Your task to perform on an android device: delete a single message in the gmail app Image 0: 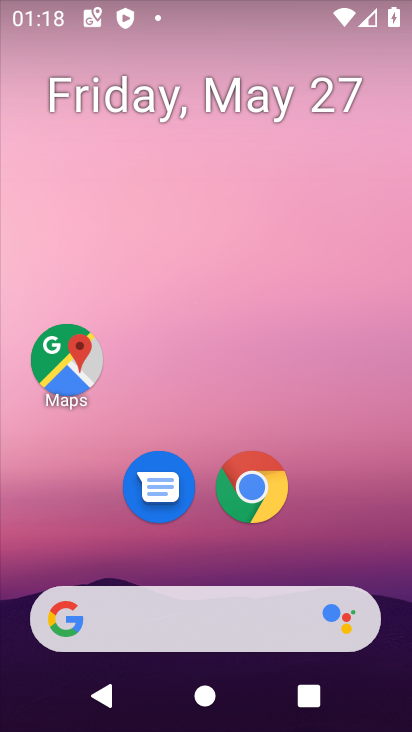
Step 0: drag from (159, 726) to (171, 41)
Your task to perform on an android device: delete a single message in the gmail app Image 1: 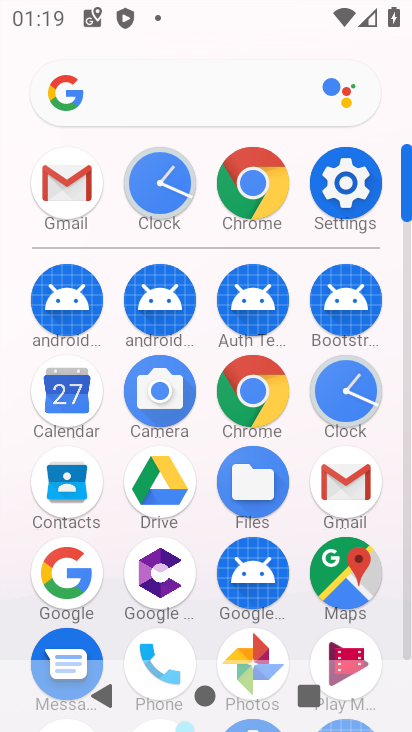
Step 1: click (341, 493)
Your task to perform on an android device: delete a single message in the gmail app Image 2: 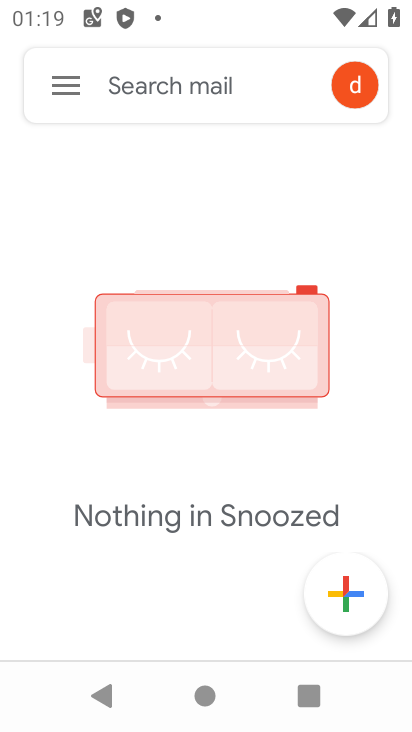
Step 2: click (57, 80)
Your task to perform on an android device: delete a single message in the gmail app Image 3: 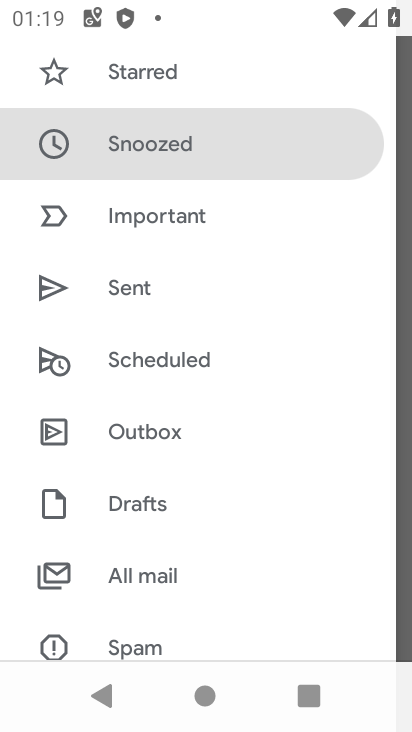
Step 3: drag from (198, 78) to (231, 591)
Your task to perform on an android device: delete a single message in the gmail app Image 4: 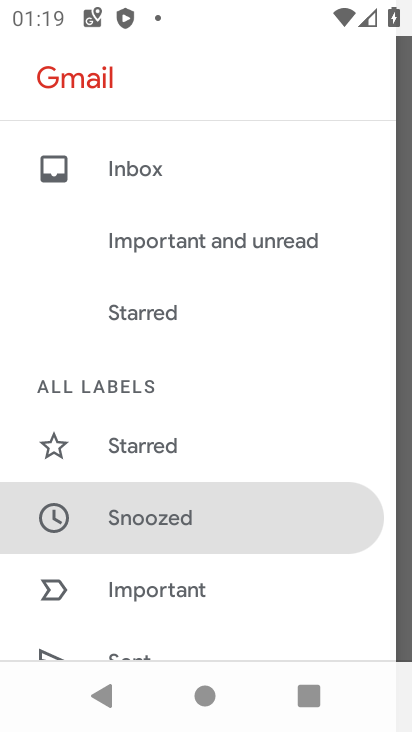
Step 4: click (106, 168)
Your task to perform on an android device: delete a single message in the gmail app Image 5: 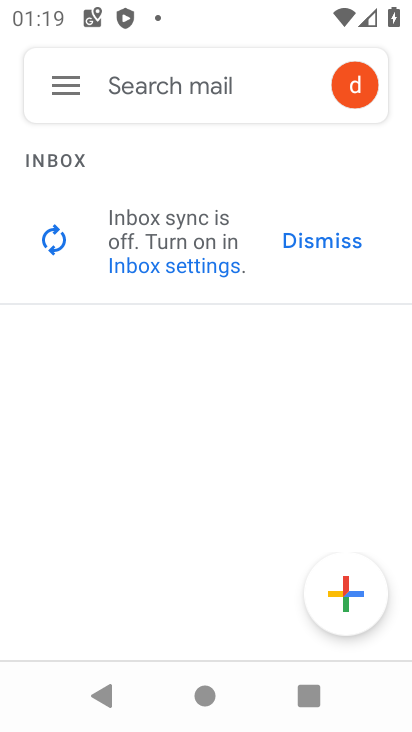
Step 5: click (353, 236)
Your task to perform on an android device: delete a single message in the gmail app Image 6: 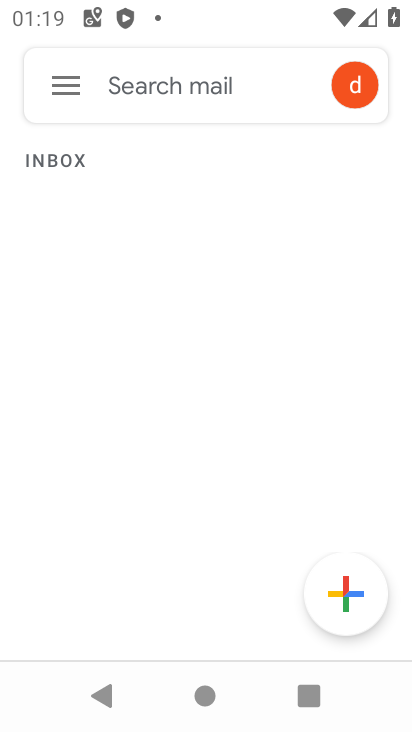
Step 6: click (69, 87)
Your task to perform on an android device: delete a single message in the gmail app Image 7: 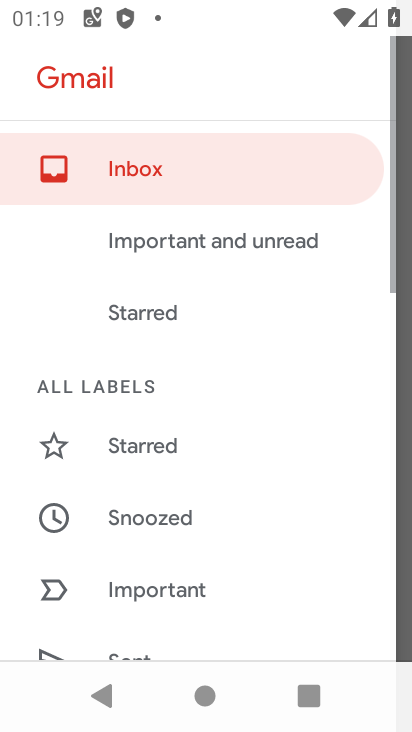
Step 7: drag from (267, 588) to (234, 252)
Your task to perform on an android device: delete a single message in the gmail app Image 8: 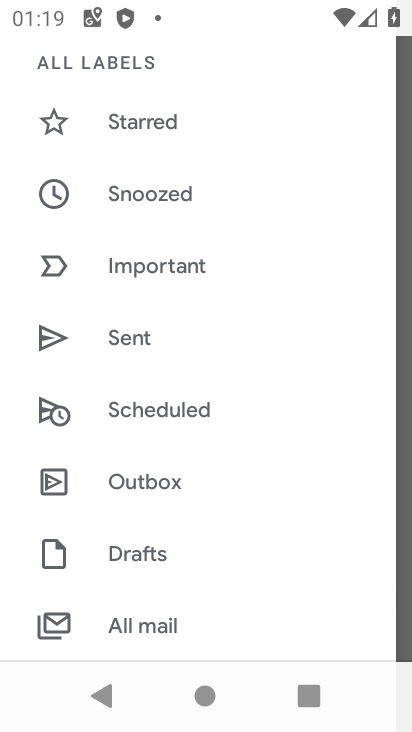
Step 8: drag from (228, 621) to (212, 359)
Your task to perform on an android device: delete a single message in the gmail app Image 9: 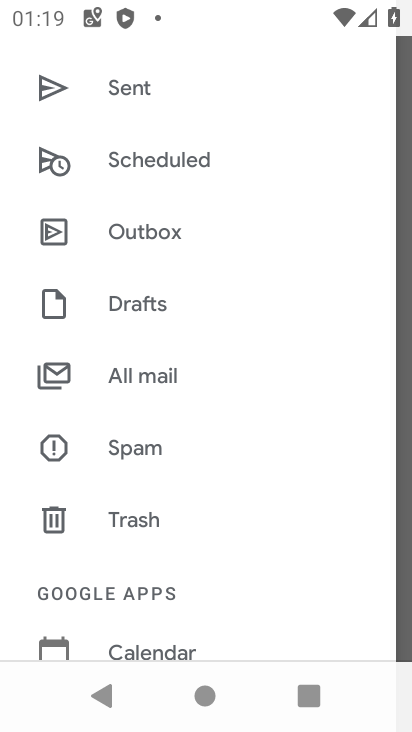
Step 9: click (140, 376)
Your task to perform on an android device: delete a single message in the gmail app Image 10: 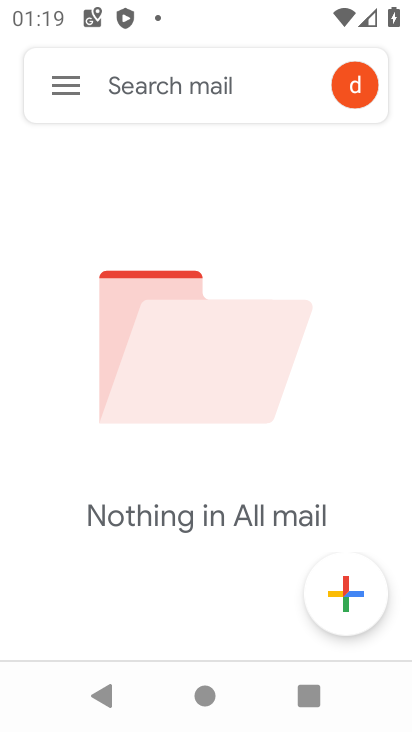
Step 10: task complete